Your task to perform on an android device: Open Chrome and go to the settings page Image 0: 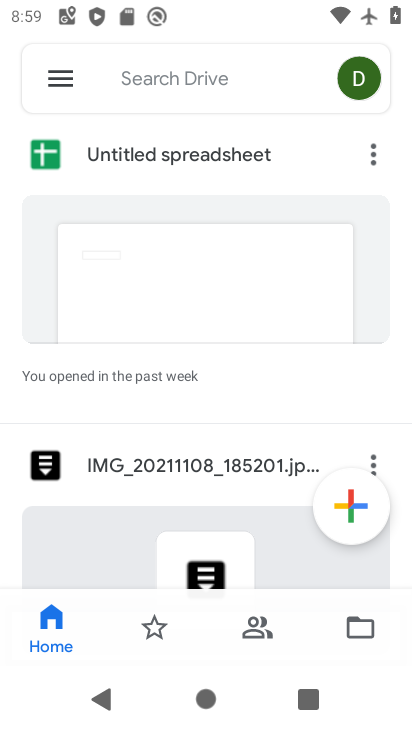
Step 0: press home button
Your task to perform on an android device: Open Chrome and go to the settings page Image 1: 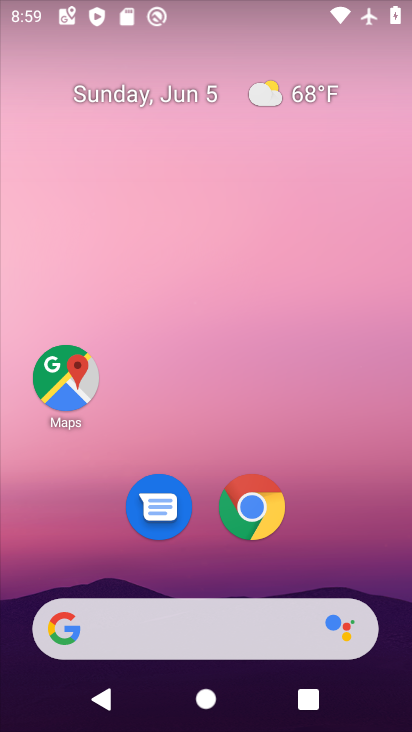
Step 1: click (240, 500)
Your task to perform on an android device: Open Chrome and go to the settings page Image 2: 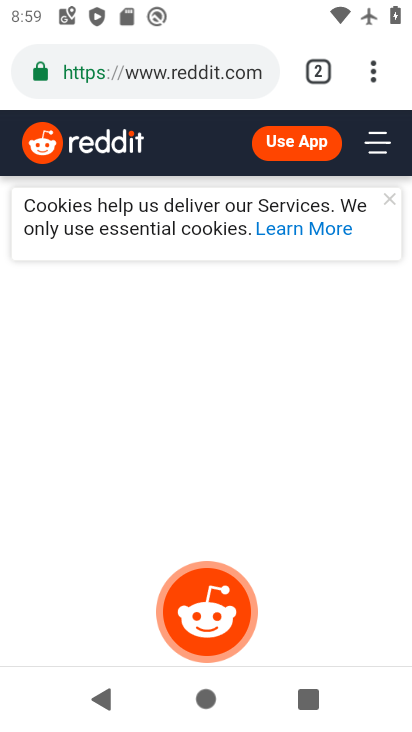
Step 2: click (374, 73)
Your task to perform on an android device: Open Chrome and go to the settings page Image 3: 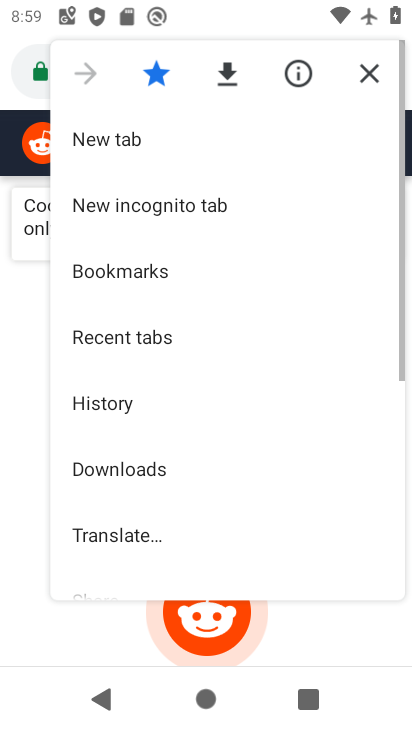
Step 3: drag from (116, 545) to (141, 293)
Your task to perform on an android device: Open Chrome and go to the settings page Image 4: 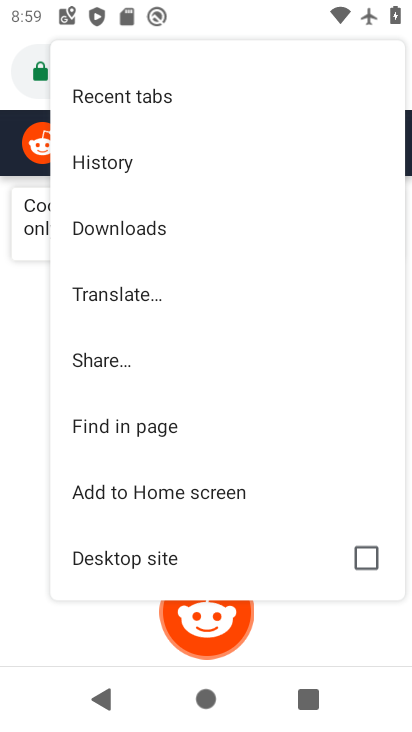
Step 4: drag from (150, 551) to (168, 333)
Your task to perform on an android device: Open Chrome and go to the settings page Image 5: 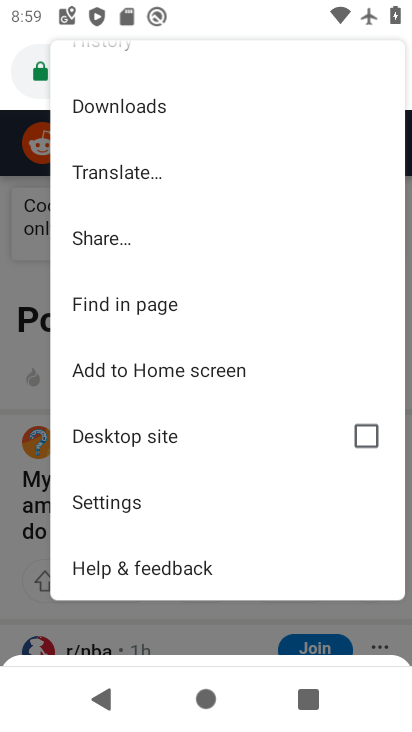
Step 5: click (112, 508)
Your task to perform on an android device: Open Chrome and go to the settings page Image 6: 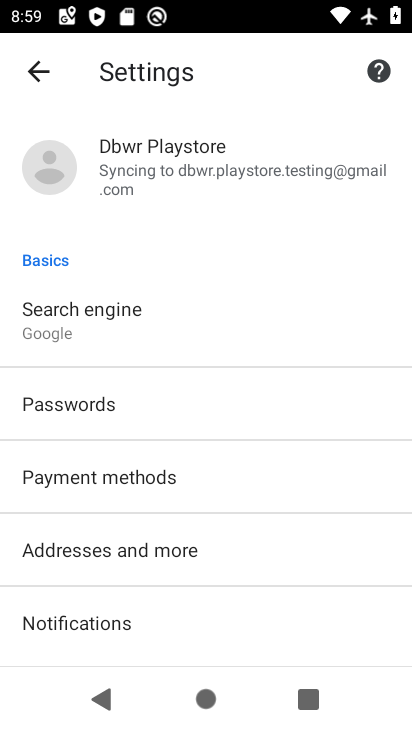
Step 6: task complete